Your task to perform on an android device: open app "Firefox Browser" (install if not already installed), go to login, and select forgot password Image 0: 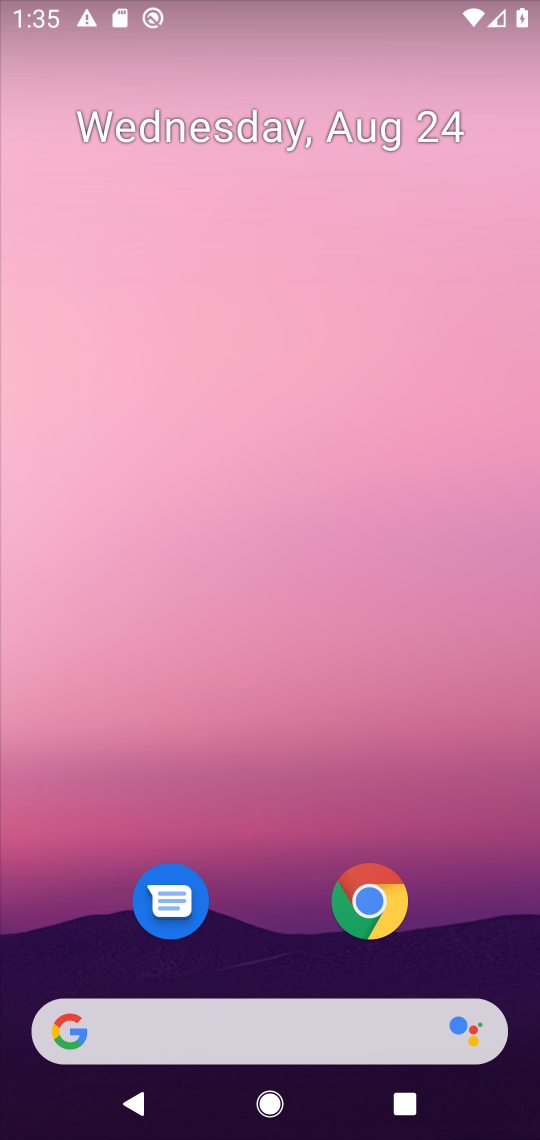
Step 0: drag from (285, 967) to (391, 150)
Your task to perform on an android device: open app "Firefox Browser" (install if not already installed), go to login, and select forgot password Image 1: 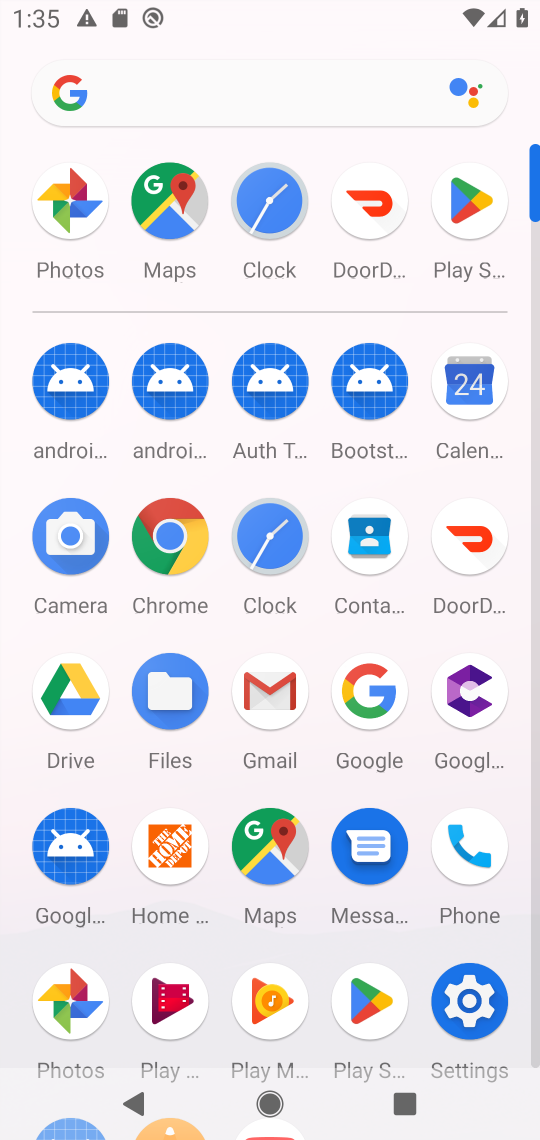
Step 1: click (454, 208)
Your task to perform on an android device: open app "Firefox Browser" (install if not already installed), go to login, and select forgot password Image 2: 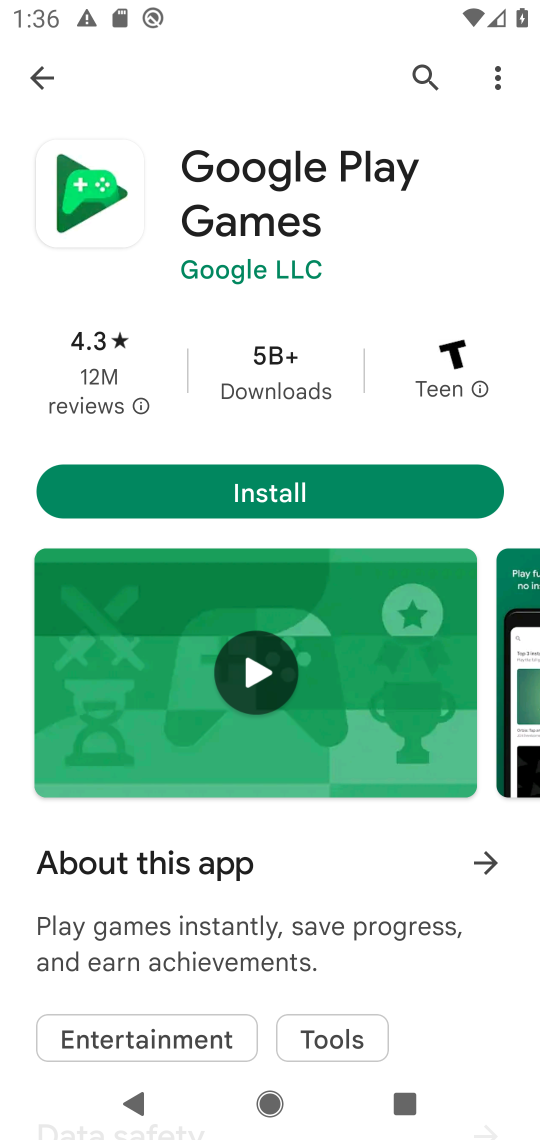
Step 2: click (412, 65)
Your task to perform on an android device: open app "Firefox Browser" (install if not already installed), go to login, and select forgot password Image 3: 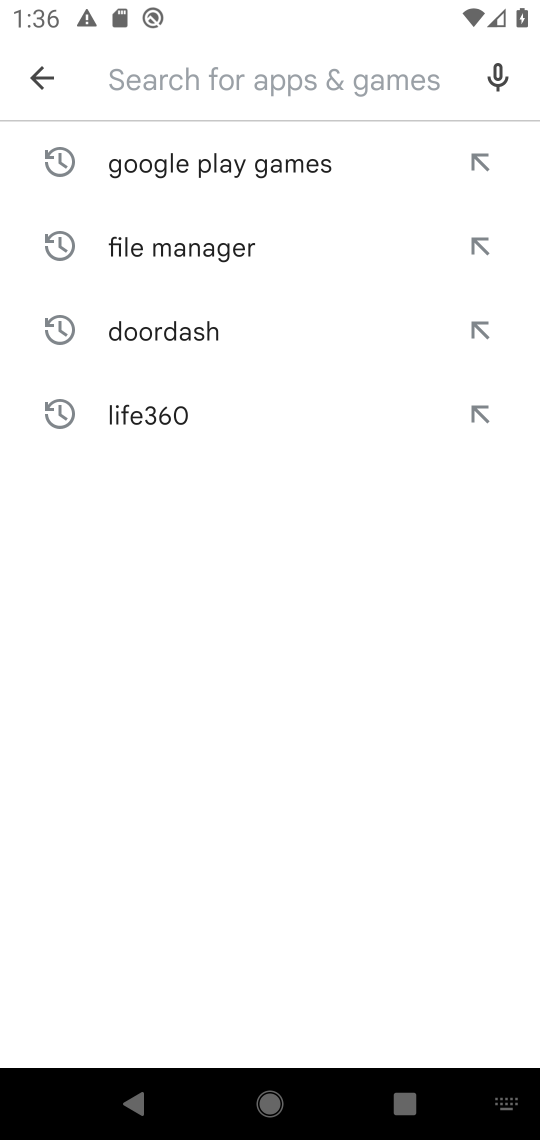
Step 3: click (224, 80)
Your task to perform on an android device: open app "Firefox Browser" (install if not already installed), go to login, and select forgot password Image 4: 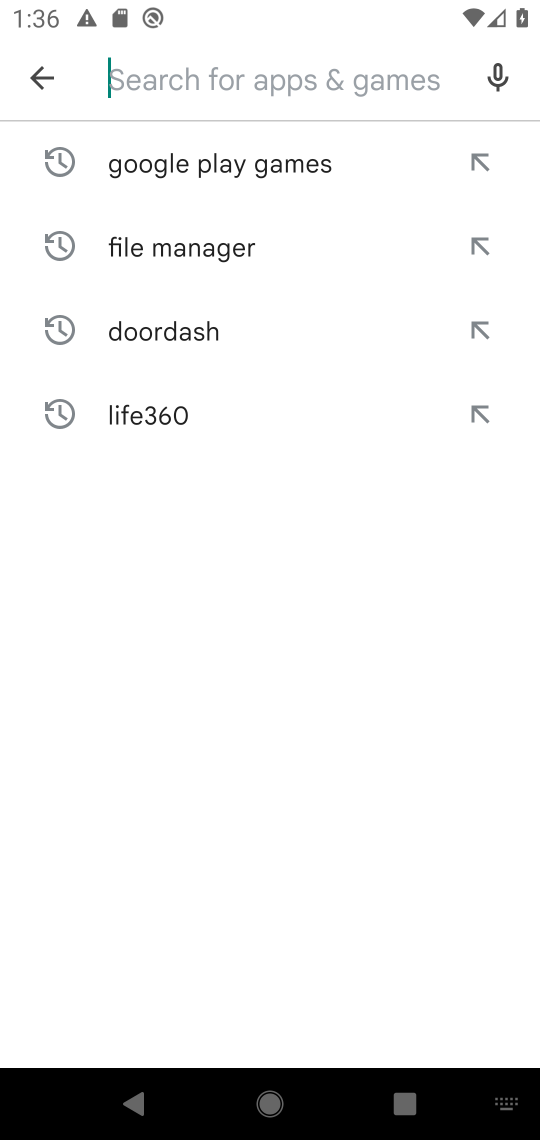
Step 4: type "Firefox Browser"
Your task to perform on an android device: open app "Firefox Browser" (install if not already installed), go to login, and select forgot password Image 5: 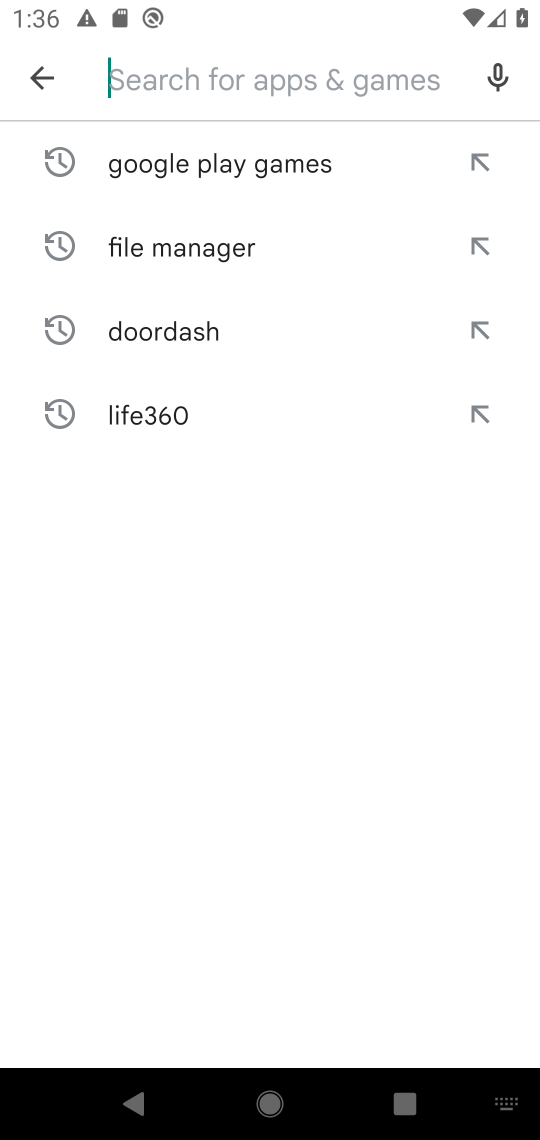
Step 5: click (330, 790)
Your task to perform on an android device: open app "Firefox Browser" (install if not already installed), go to login, and select forgot password Image 6: 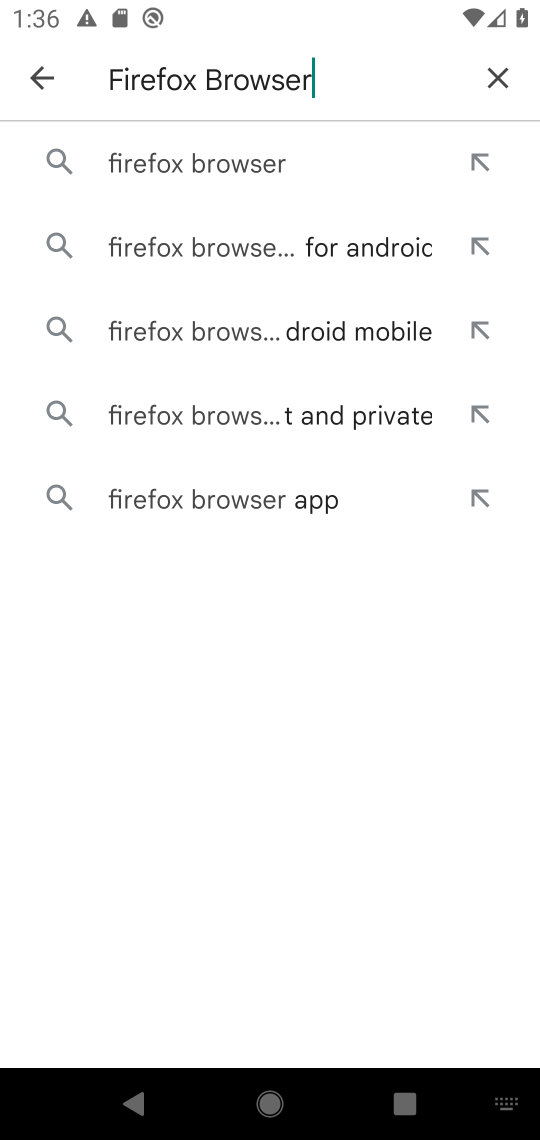
Step 6: click (158, 131)
Your task to perform on an android device: open app "Firefox Browser" (install if not already installed), go to login, and select forgot password Image 7: 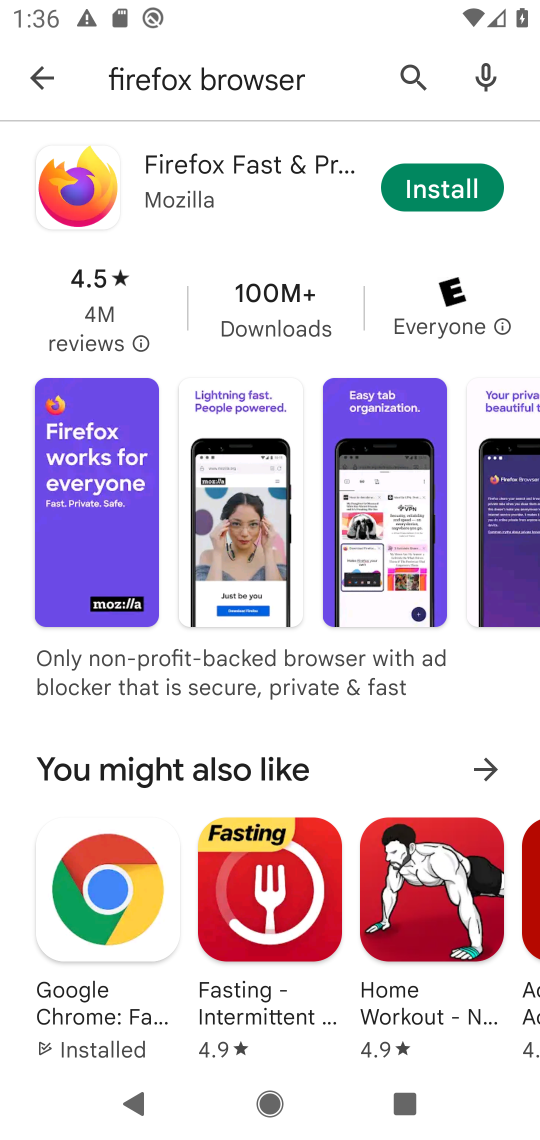
Step 7: click (434, 190)
Your task to perform on an android device: open app "Firefox Browser" (install if not already installed), go to login, and select forgot password Image 8: 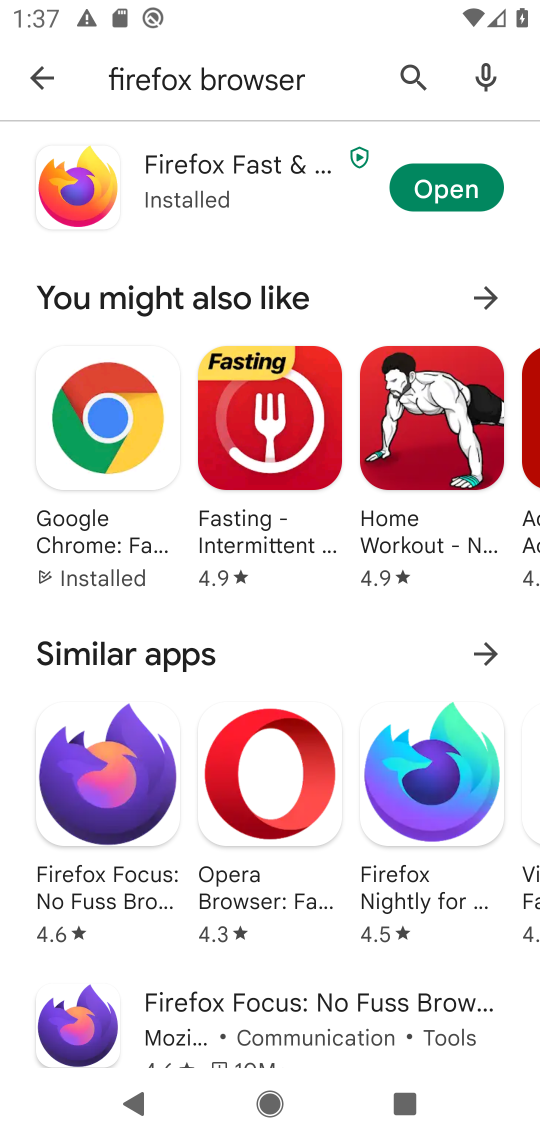
Step 8: click (459, 178)
Your task to perform on an android device: open app "Firefox Browser" (install if not already installed), go to login, and select forgot password Image 9: 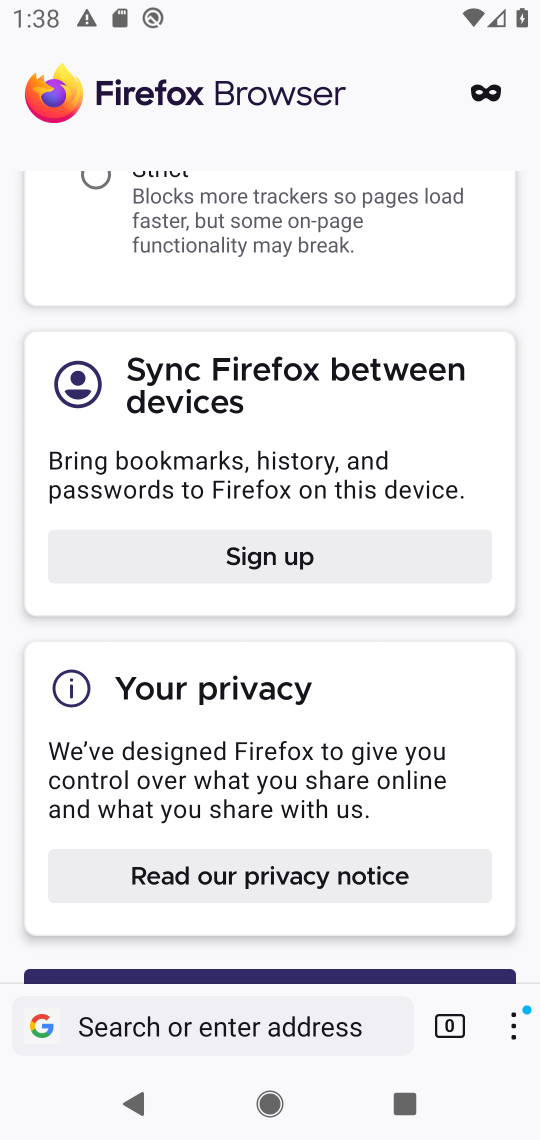
Step 9: task complete